Your task to perform on an android device: turn smart compose on in the gmail app Image 0: 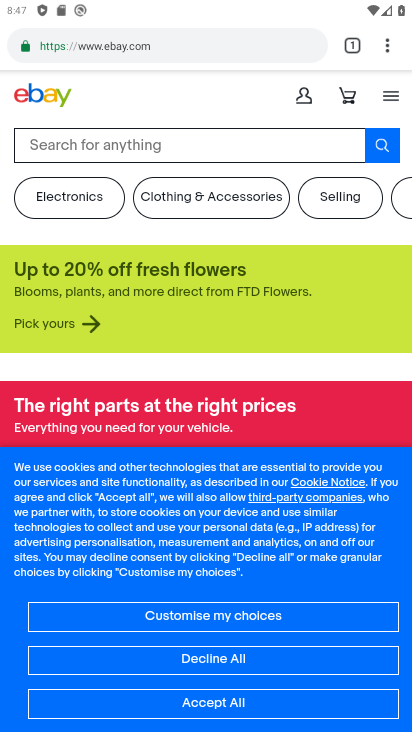
Step 0: press home button
Your task to perform on an android device: turn smart compose on in the gmail app Image 1: 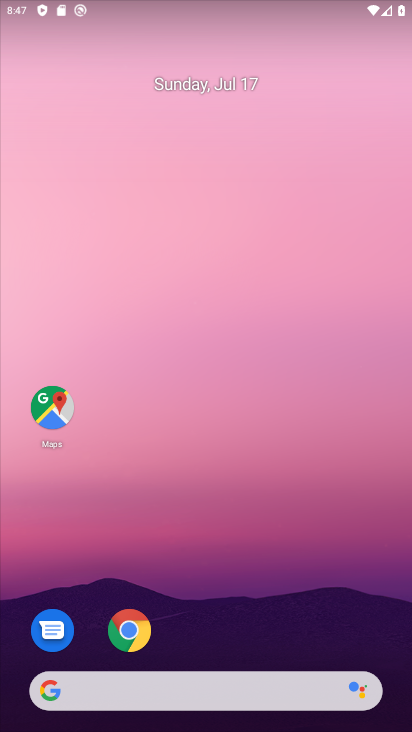
Step 1: drag from (209, 697) to (264, 91)
Your task to perform on an android device: turn smart compose on in the gmail app Image 2: 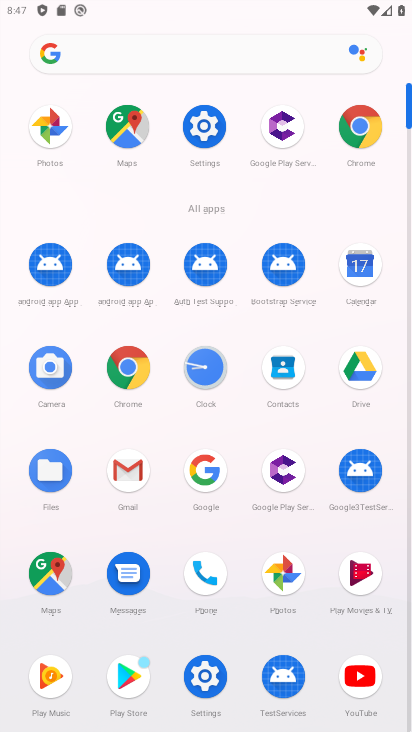
Step 2: click (130, 465)
Your task to perform on an android device: turn smart compose on in the gmail app Image 3: 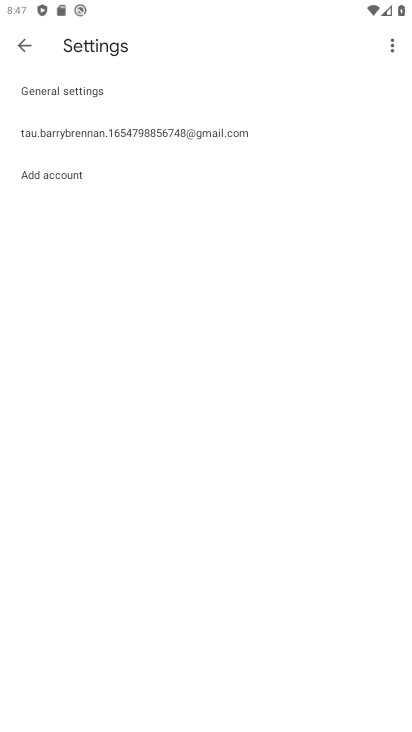
Step 3: click (227, 131)
Your task to perform on an android device: turn smart compose on in the gmail app Image 4: 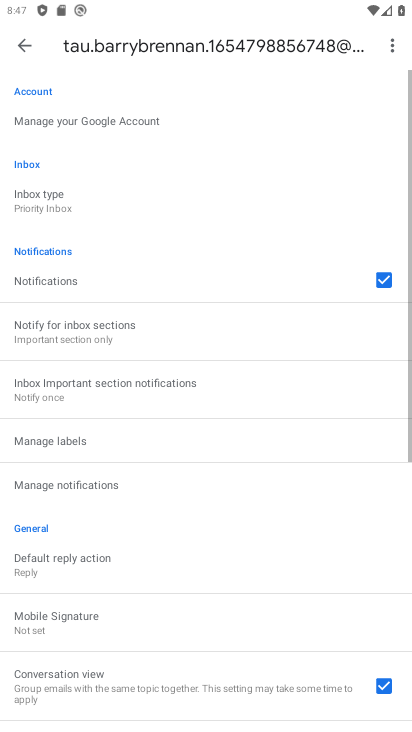
Step 4: task complete